Your task to perform on an android device: find photos in the google photos app Image 0: 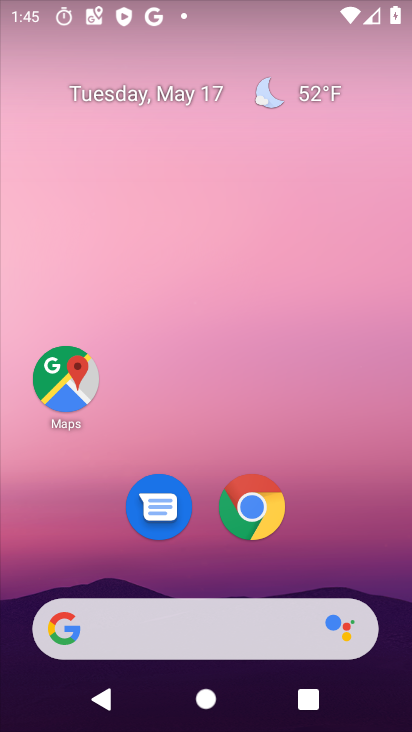
Step 0: drag from (200, 563) to (198, 89)
Your task to perform on an android device: find photos in the google photos app Image 1: 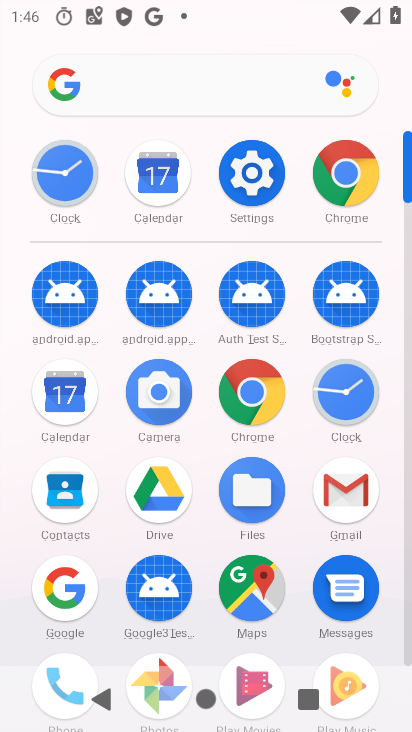
Step 1: drag from (116, 618) to (131, 243)
Your task to perform on an android device: find photos in the google photos app Image 2: 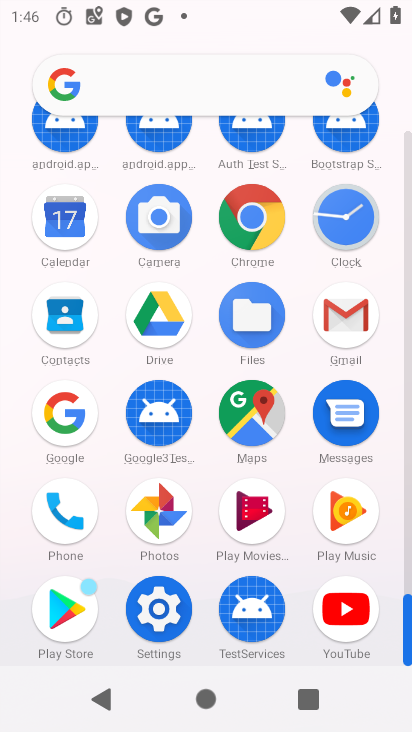
Step 2: click (168, 498)
Your task to perform on an android device: find photos in the google photos app Image 3: 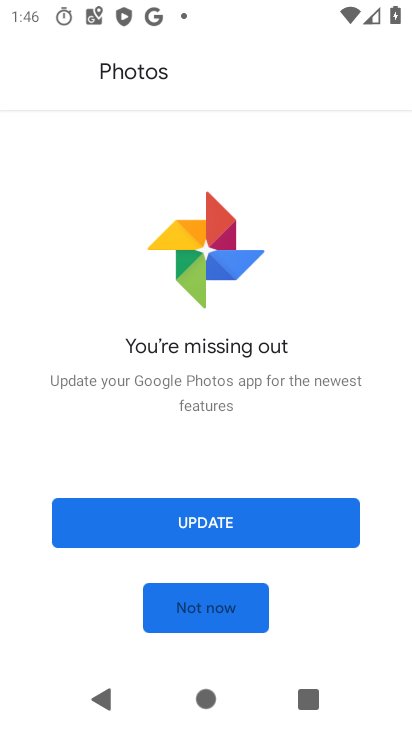
Step 3: click (233, 527)
Your task to perform on an android device: find photos in the google photos app Image 4: 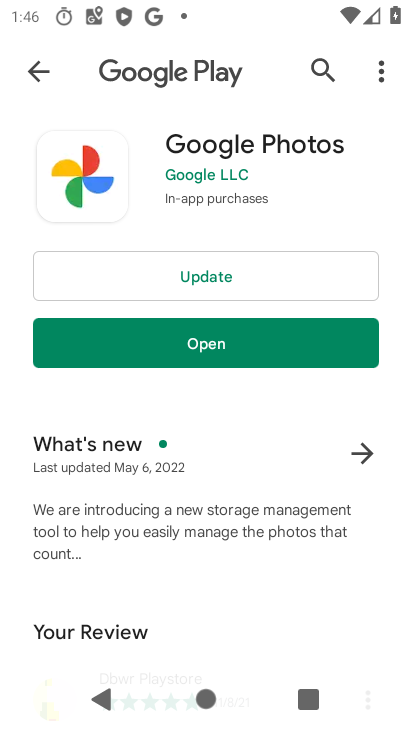
Step 4: click (213, 279)
Your task to perform on an android device: find photos in the google photos app Image 5: 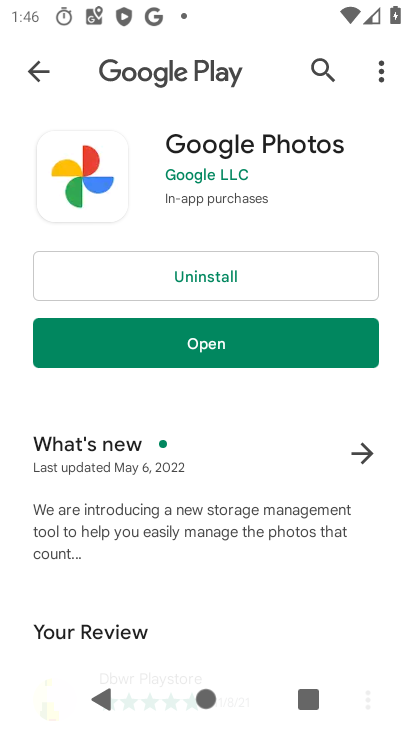
Step 5: click (214, 351)
Your task to perform on an android device: find photos in the google photos app Image 6: 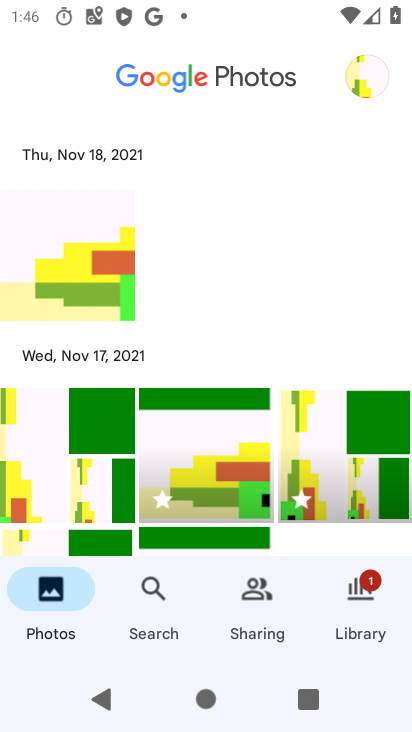
Step 6: task complete